Your task to perform on an android device: Open Chrome and go to settings Image 0: 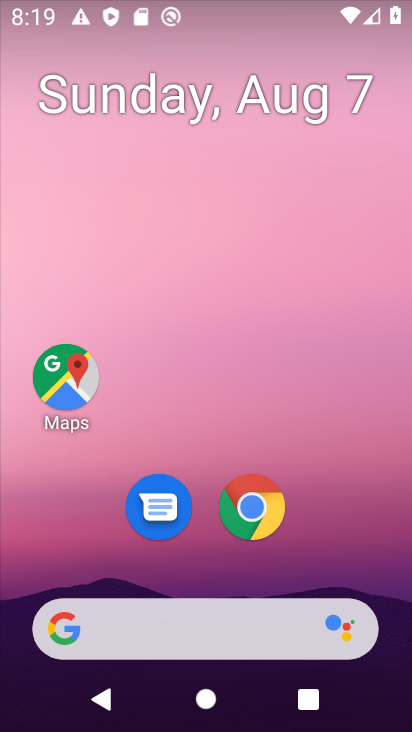
Step 0: click (264, 504)
Your task to perform on an android device: Open Chrome and go to settings Image 1: 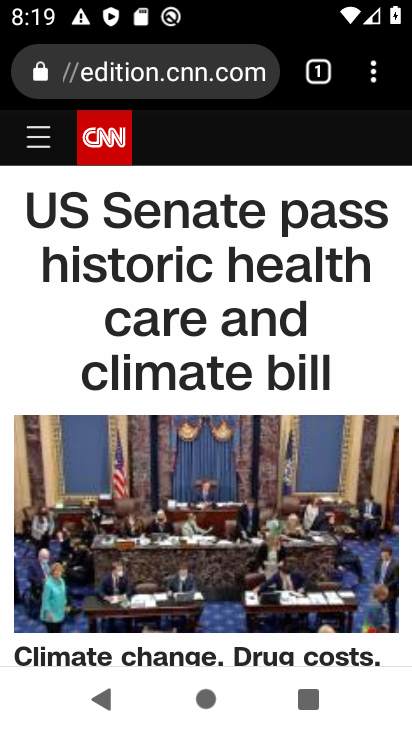
Step 1: click (376, 69)
Your task to perform on an android device: Open Chrome and go to settings Image 2: 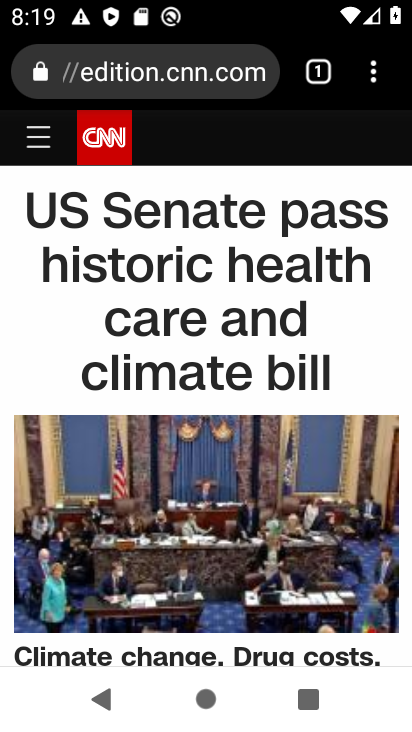
Step 2: task complete